Your task to perform on an android device: search for starred emails in the gmail app Image 0: 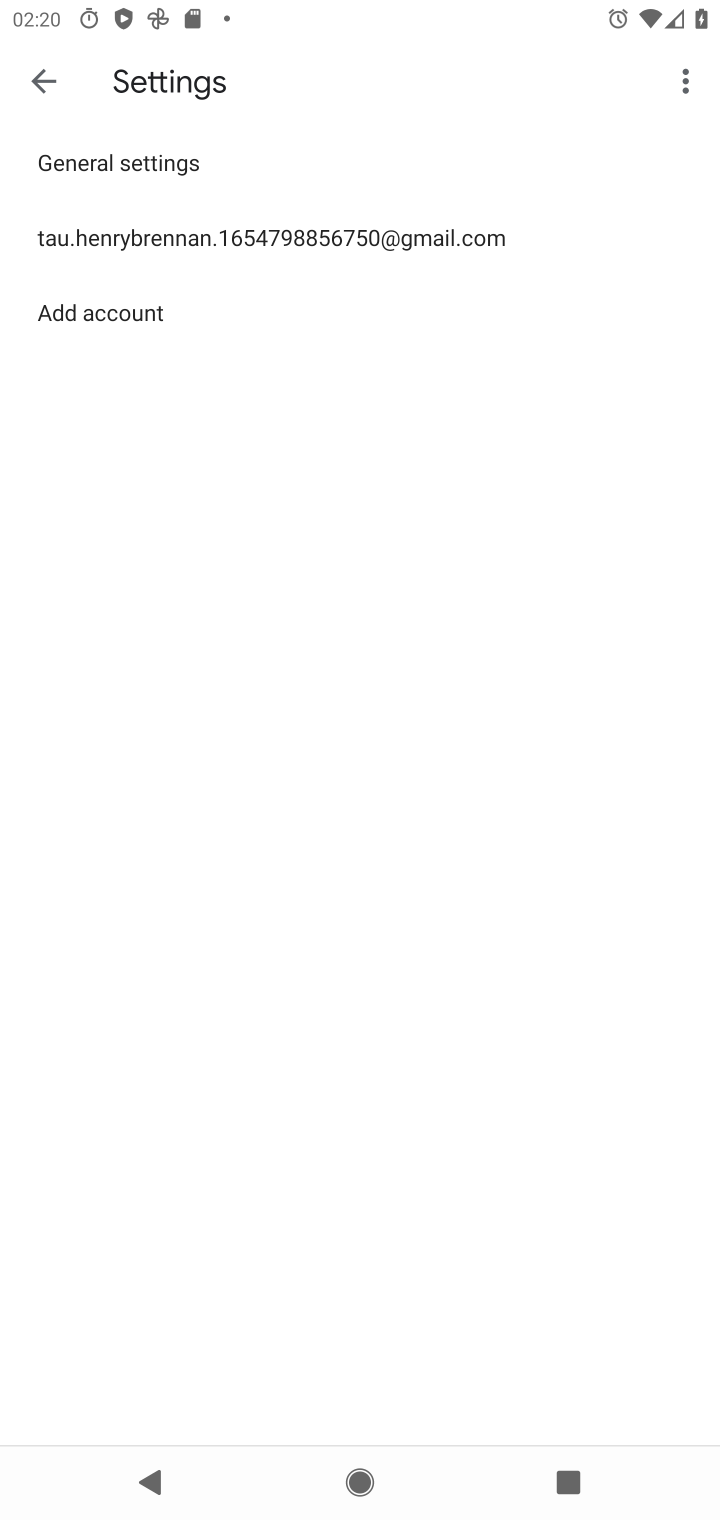
Step 0: press back button
Your task to perform on an android device: search for starred emails in the gmail app Image 1: 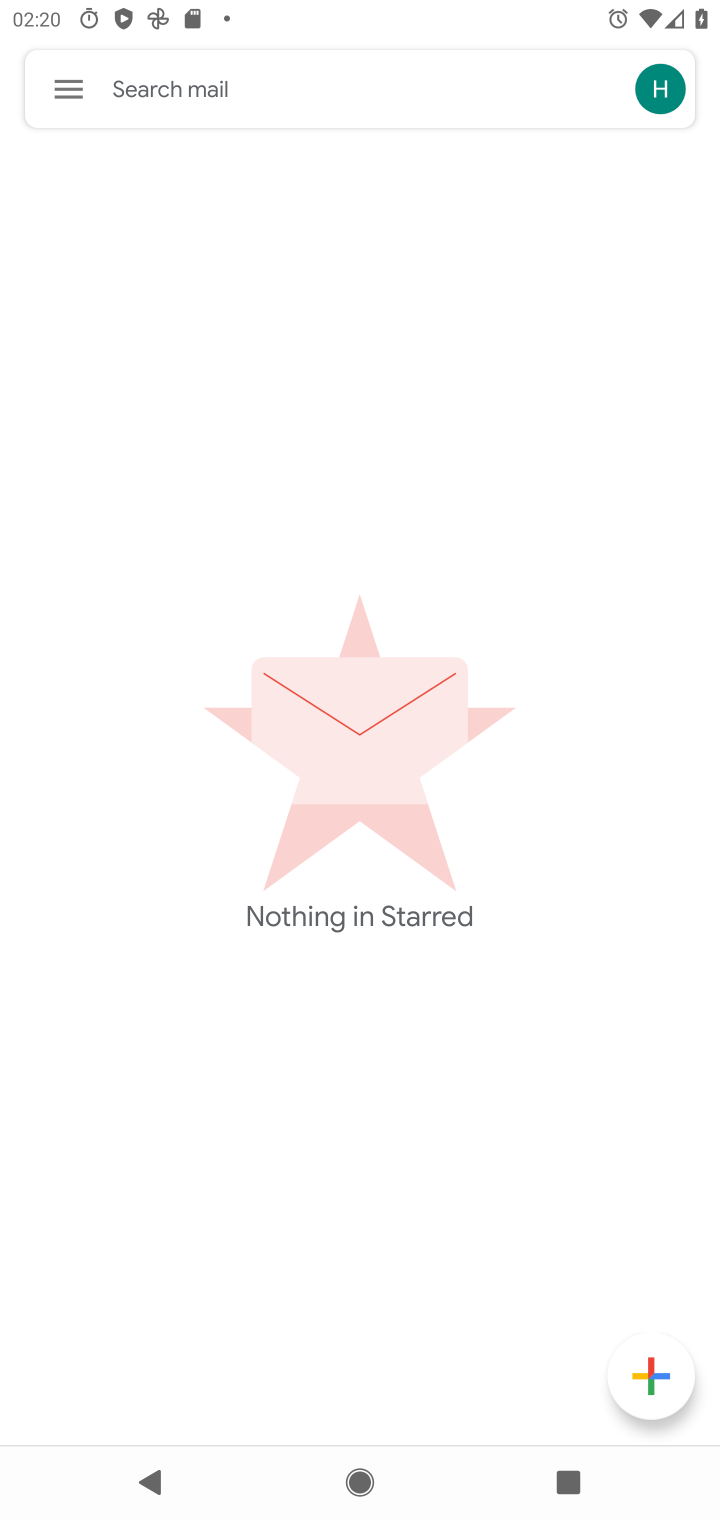
Step 1: click (57, 93)
Your task to perform on an android device: search for starred emails in the gmail app Image 2: 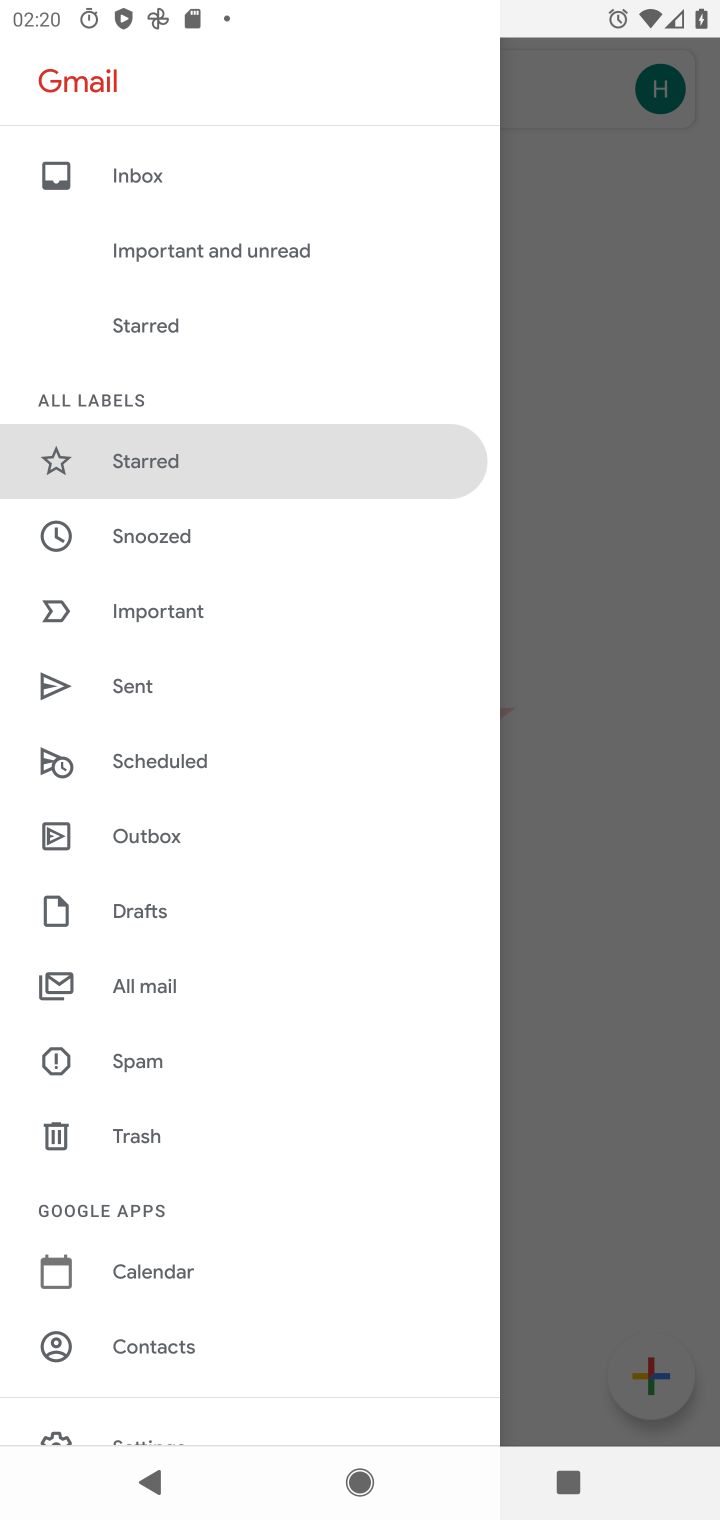
Step 2: task complete